Your task to perform on an android device: change notification settings in the gmail app Image 0: 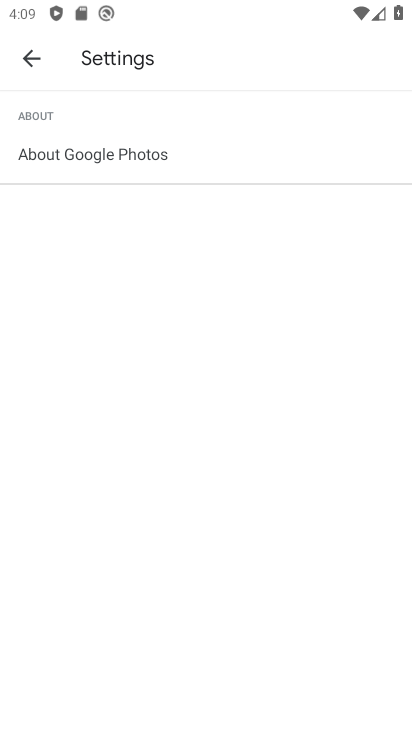
Step 0: click (31, 63)
Your task to perform on an android device: change notification settings in the gmail app Image 1: 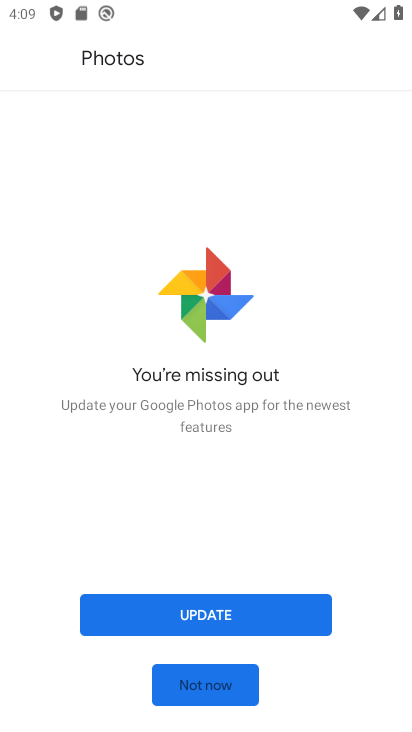
Step 1: click (213, 610)
Your task to perform on an android device: change notification settings in the gmail app Image 2: 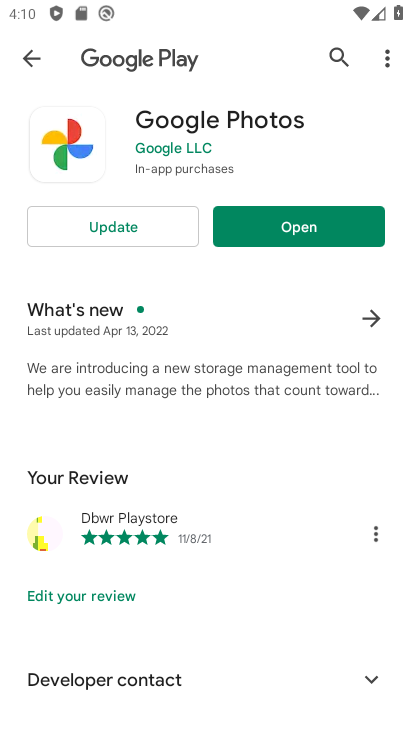
Step 2: press home button
Your task to perform on an android device: change notification settings in the gmail app Image 3: 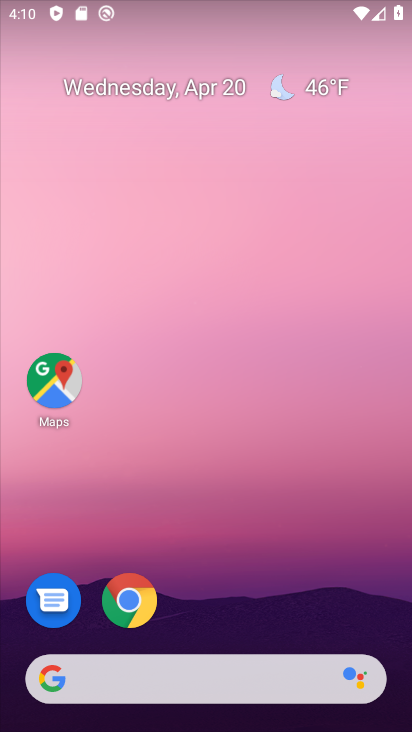
Step 3: drag from (200, 561) to (219, 142)
Your task to perform on an android device: change notification settings in the gmail app Image 4: 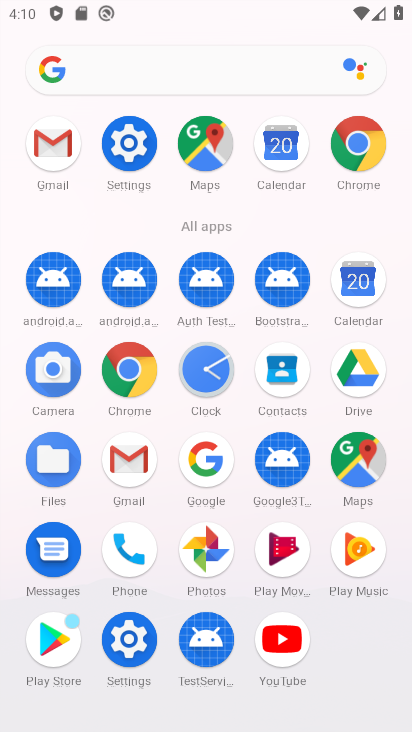
Step 4: click (128, 452)
Your task to perform on an android device: change notification settings in the gmail app Image 5: 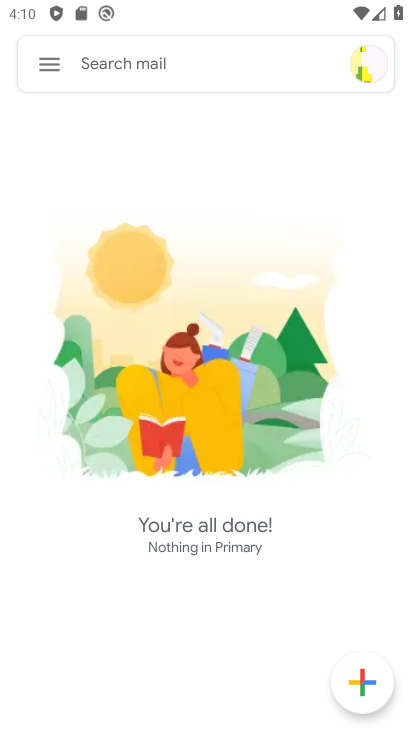
Step 5: click (48, 63)
Your task to perform on an android device: change notification settings in the gmail app Image 6: 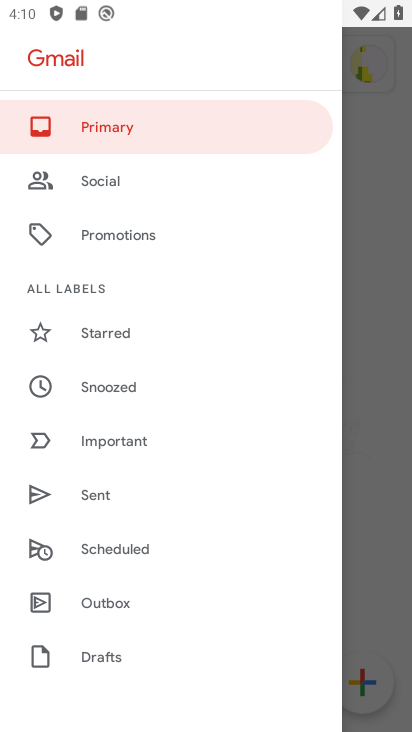
Step 6: drag from (135, 642) to (154, 130)
Your task to perform on an android device: change notification settings in the gmail app Image 7: 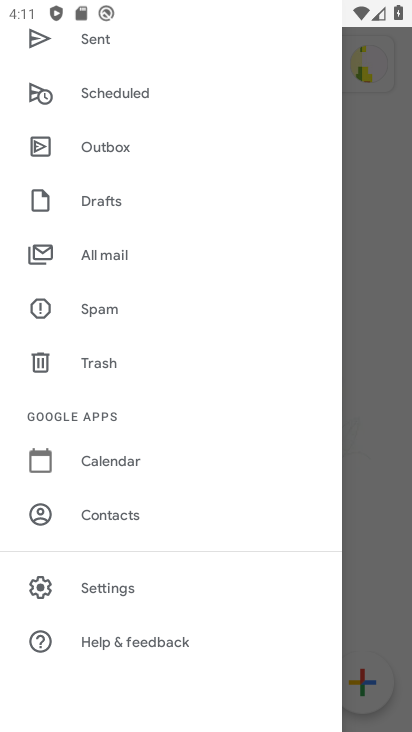
Step 7: click (139, 585)
Your task to perform on an android device: change notification settings in the gmail app Image 8: 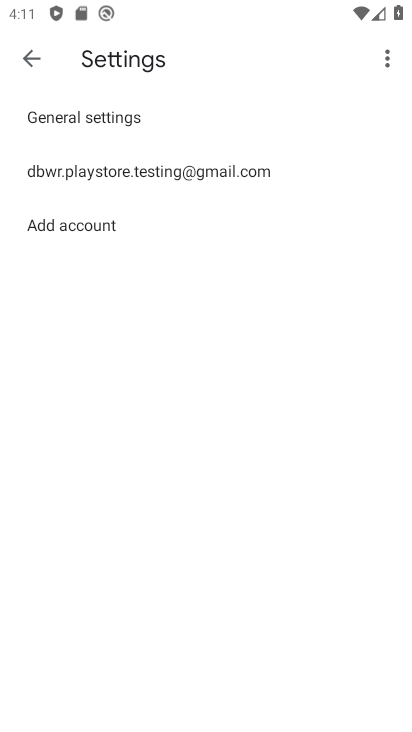
Step 8: click (115, 119)
Your task to perform on an android device: change notification settings in the gmail app Image 9: 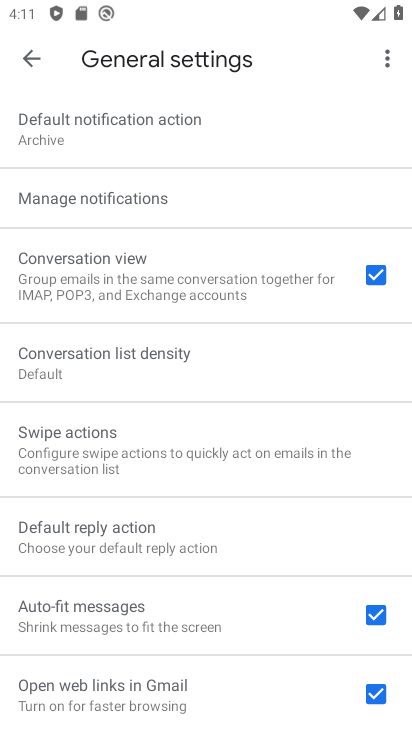
Step 9: click (140, 208)
Your task to perform on an android device: change notification settings in the gmail app Image 10: 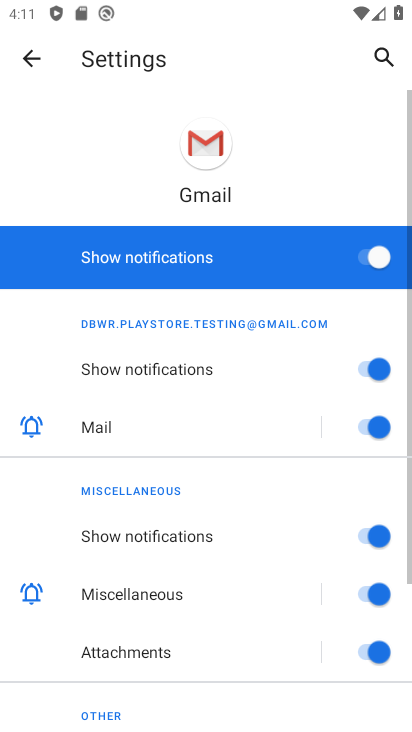
Step 10: click (375, 256)
Your task to perform on an android device: change notification settings in the gmail app Image 11: 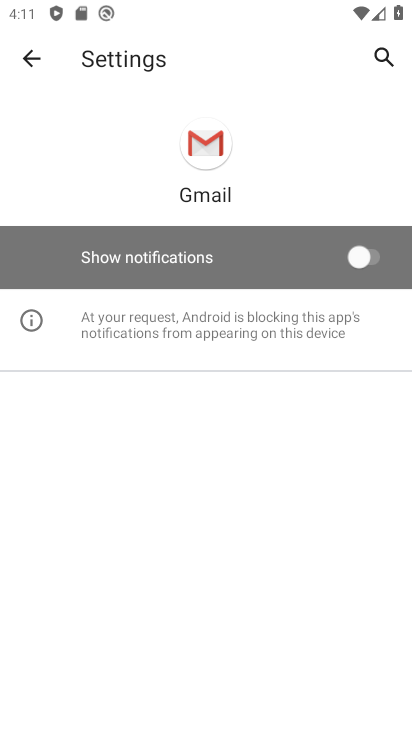
Step 11: task complete